Your task to perform on an android device: Open Google Maps Image 0: 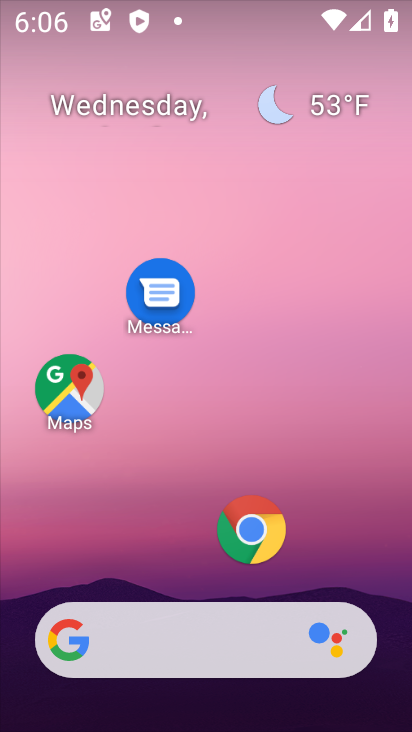
Step 0: click (255, 243)
Your task to perform on an android device: Open Google Maps Image 1: 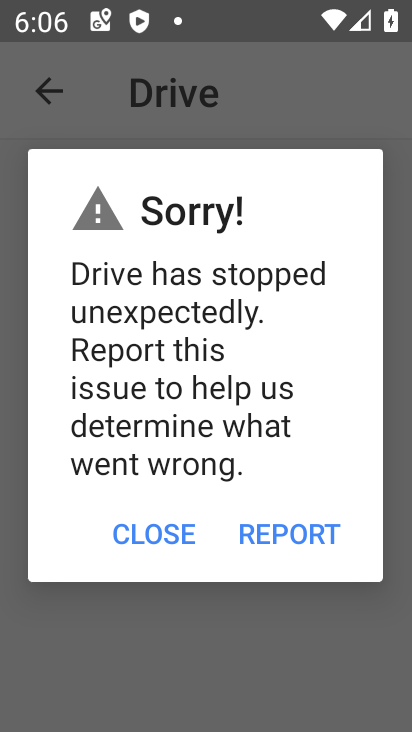
Step 1: press home button
Your task to perform on an android device: Open Google Maps Image 2: 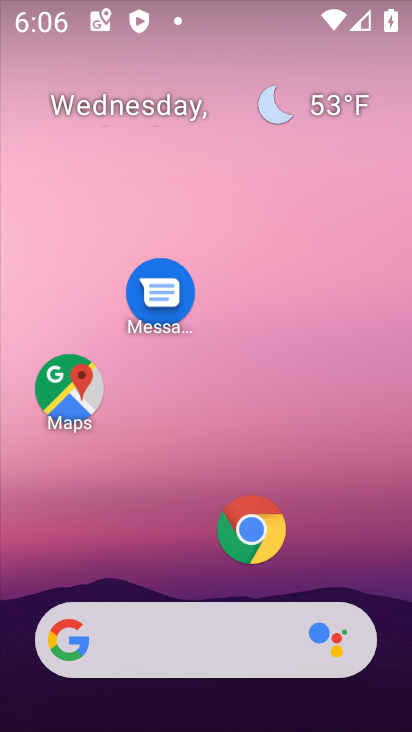
Step 2: drag from (220, 572) to (218, 232)
Your task to perform on an android device: Open Google Maps Image 3: 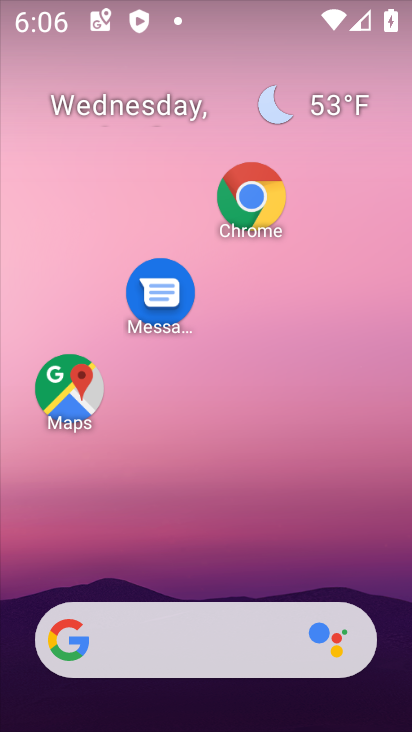
Step 3: drag from (208, 583) to (211, 49)
Your task to perform on an android device: Open Google Maps Image 4: 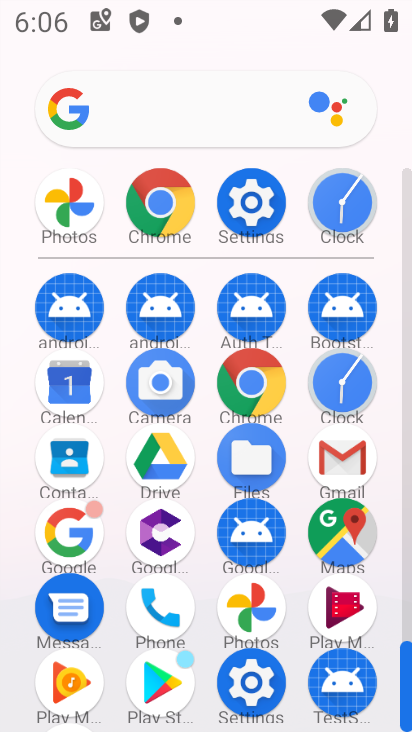
Step 4: click (343, 541)
Your task to perform on an android device: Open Google Maps Image 5: 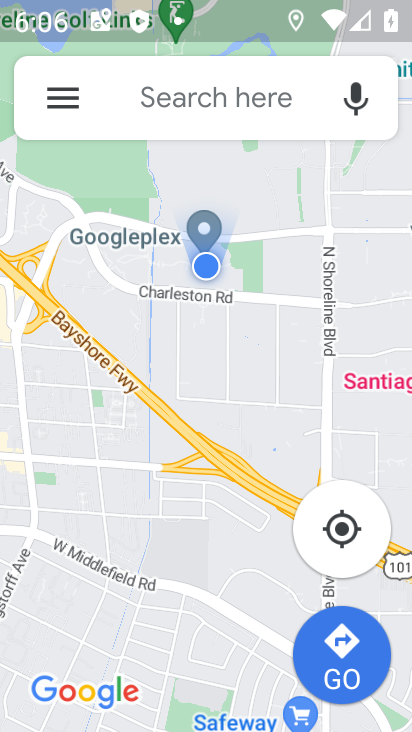
Step 5: task complete